Your task to perform on an android device: change text size in settings app Image 0: 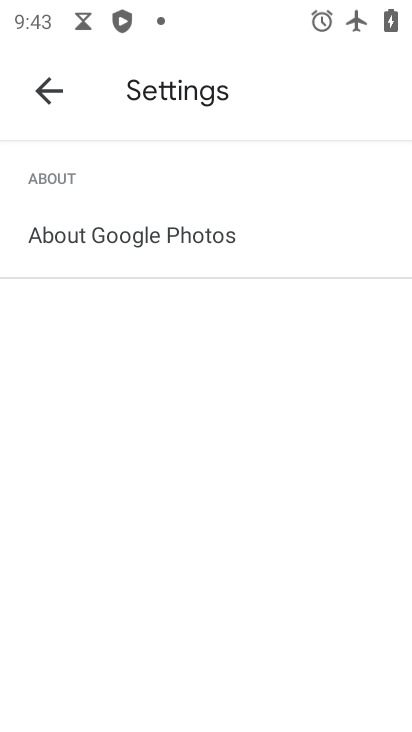
Step 0: press home button
Your task to perform on an android device: change text size in settings app Image 1: 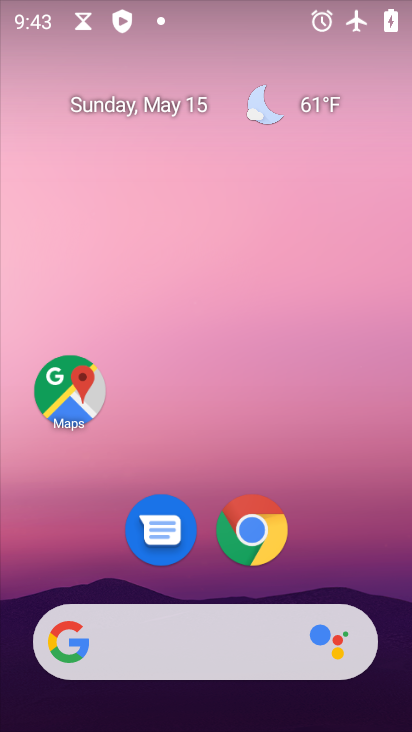
Step 1: drag from (219, 712) to (230, 310)
Your task to perform on an android device: change text size in settings app Image 2: 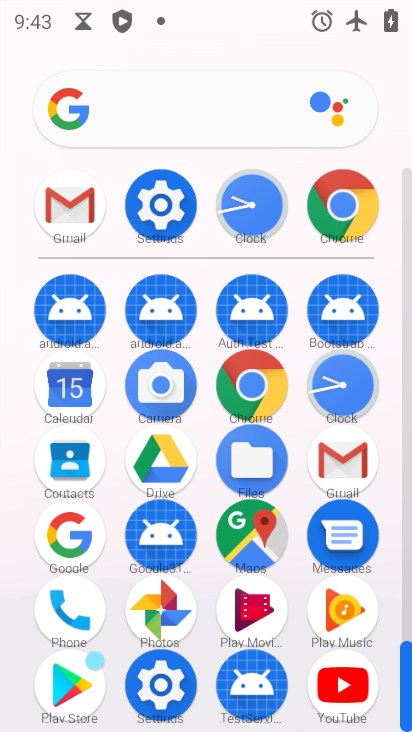
Step 2: click (154, 209)
Your task to perform on an android device: change text size in settings app Image 3: 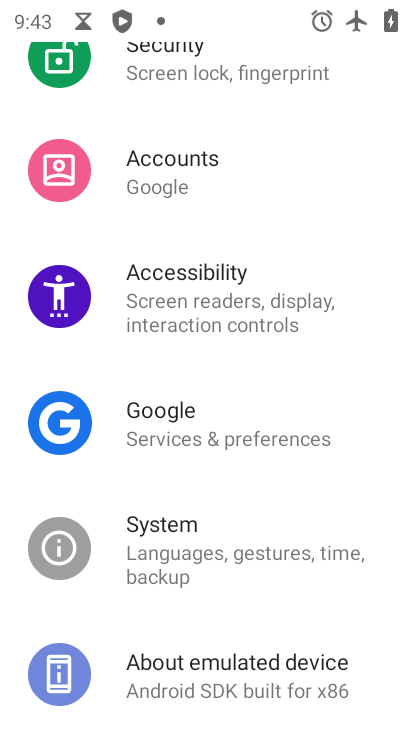
Step 3: drag from (250, 318) to (247, 494)
Your task to perform on an android device: change text size in settings app Image 4: 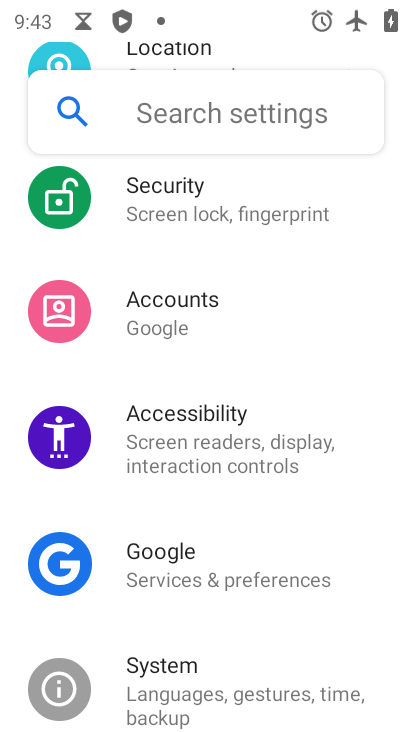
Step 4: click (222, 678)
Your task to perform on an android device: change text size in settings app Image 5: 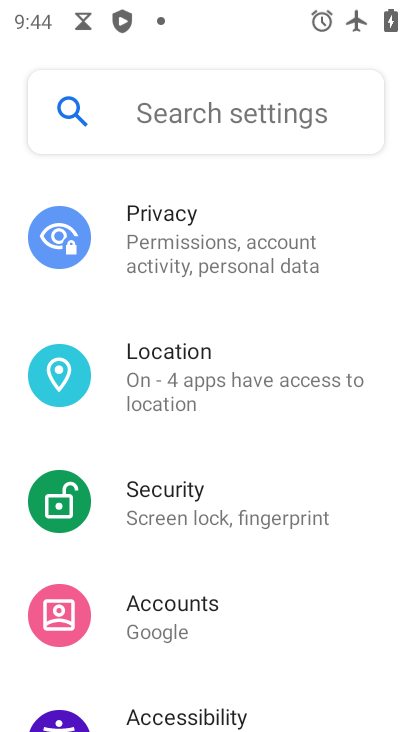
Step 5: drag from (257, 213) to (233, 645)
Your task to perform on an android device: change text size in settings app Image 6: 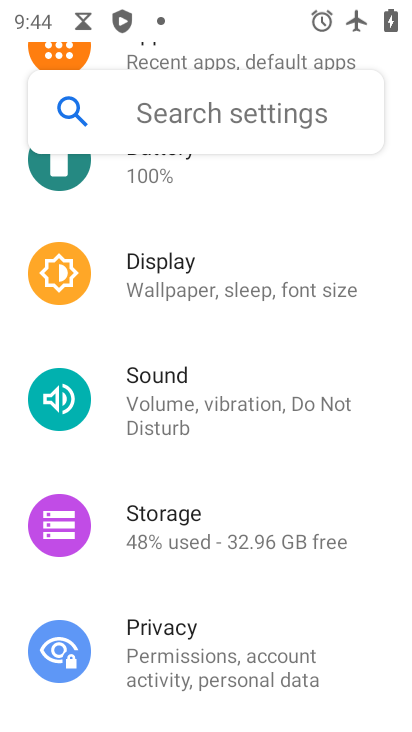
Step 6: click (238, 279)
Your task to perform on an android device: change text size in settings app Image 7: 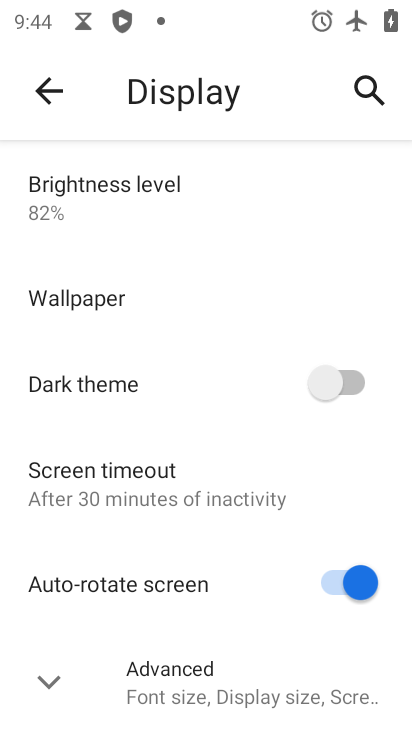
Step 7: drag from (200, 641) to (197, 236)
Your task to perform on an android device: change text size in settings app Image 8: 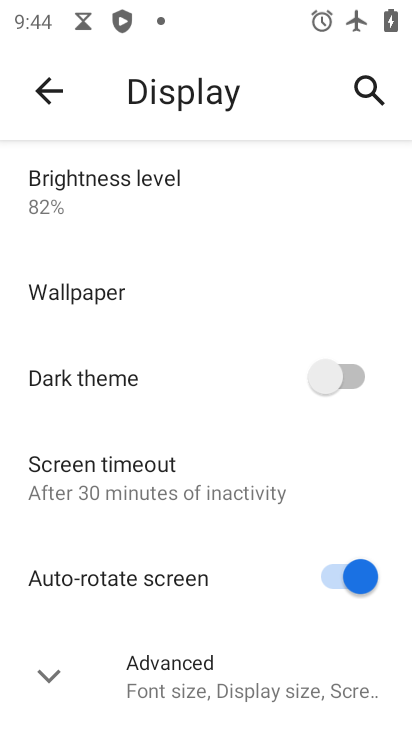
Step 8: click (210, 677)
Your task to perform on an android device: change text size in settings app Image 9: 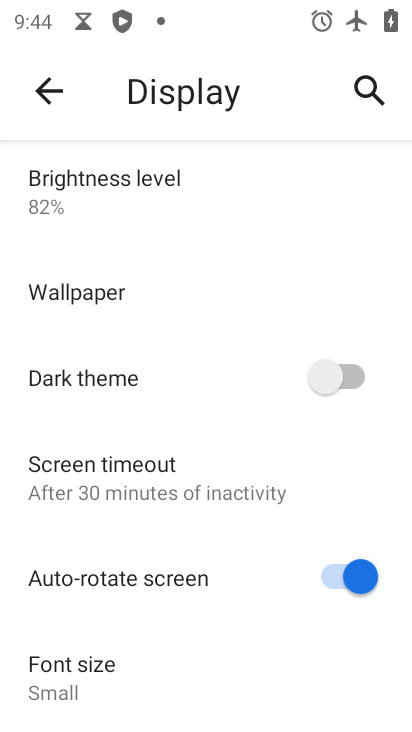
Step 9: drag from (207, 665) to (212, 243)
Your task to perform on an android device: change text size in settings app Image 10: 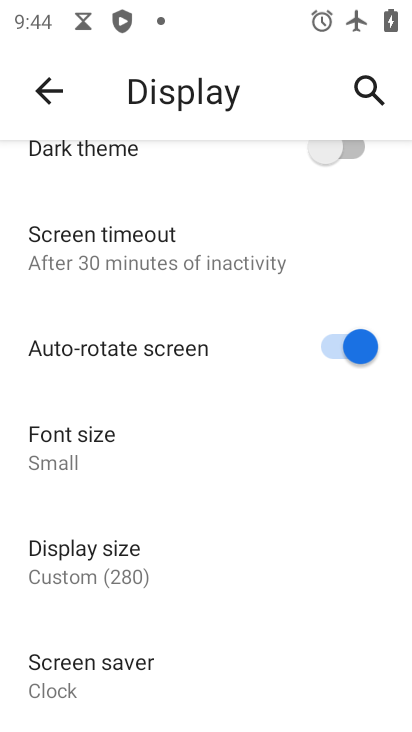
Step 10: click (71, 449)
Your task to perform on an android device: change text size in settings app Image 11: 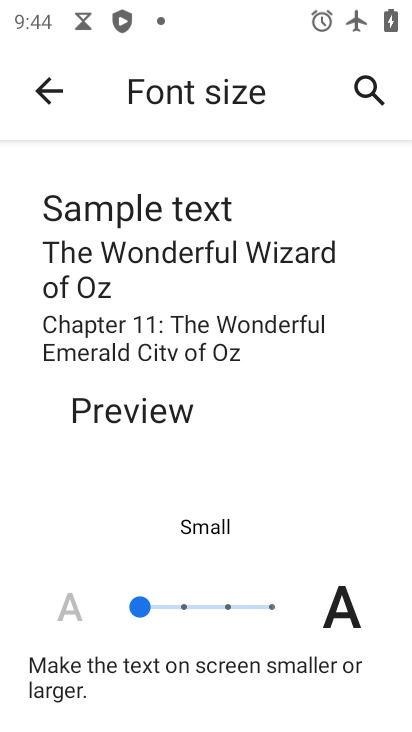
Step 11: click (179, 606)
Your task to perform on an android device: change text size in settings app Image 12: 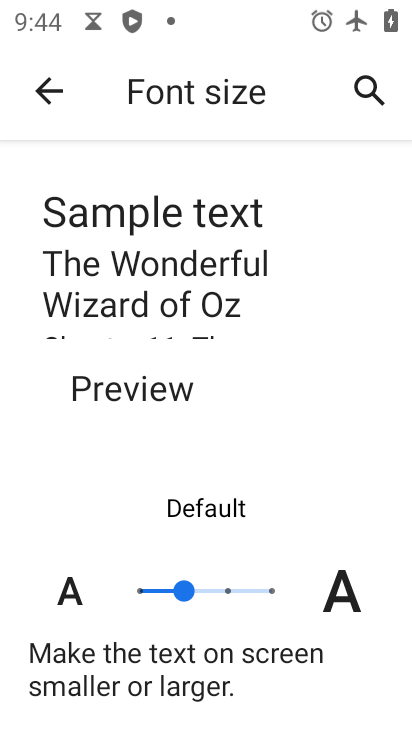
Step 12: task complete